Your task to perform on an android device: change the clock display to analog Image 0: 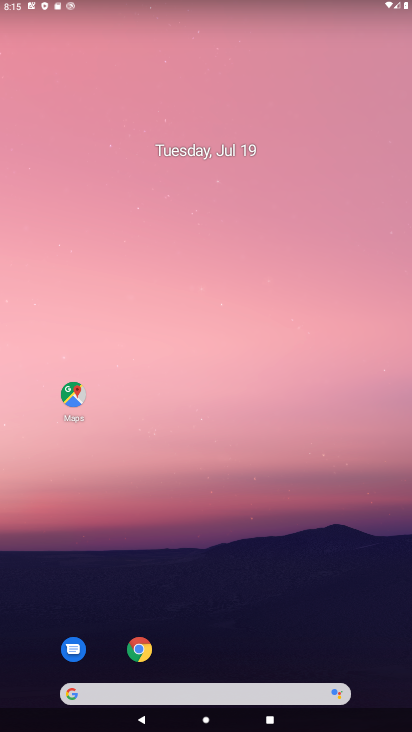
Step 0: press home button
Your task to perform on an android device: change the clock display to analog Image 1: 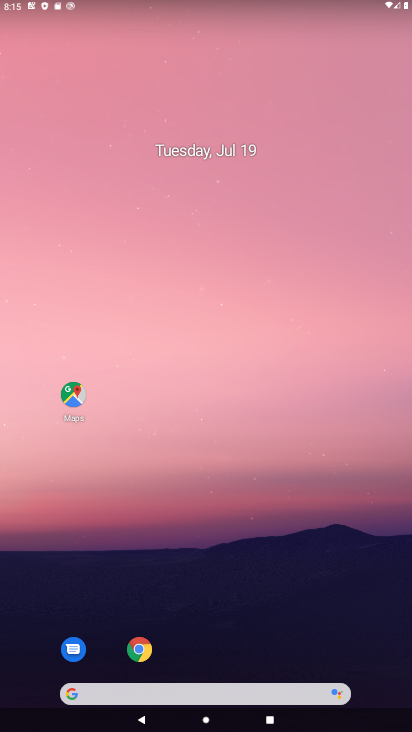
Step 1: drag from (215, 669) to (246, 0)
Your task to perform on an android device: change the clock display to analog Image 2: 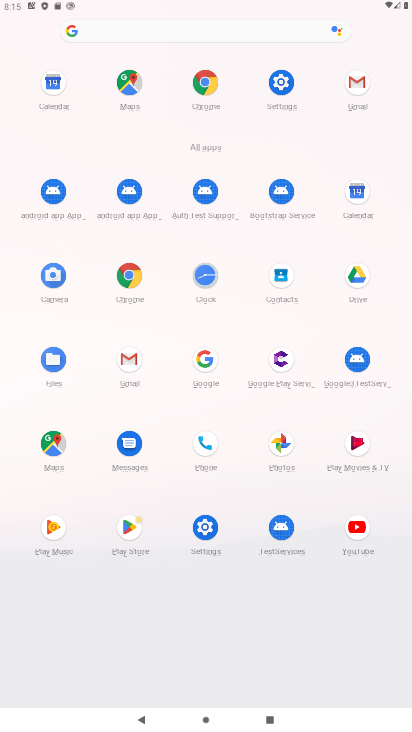
Step 2: click (203, 271)
Your task to perform on an android device: change the clock display to analog Image 3: 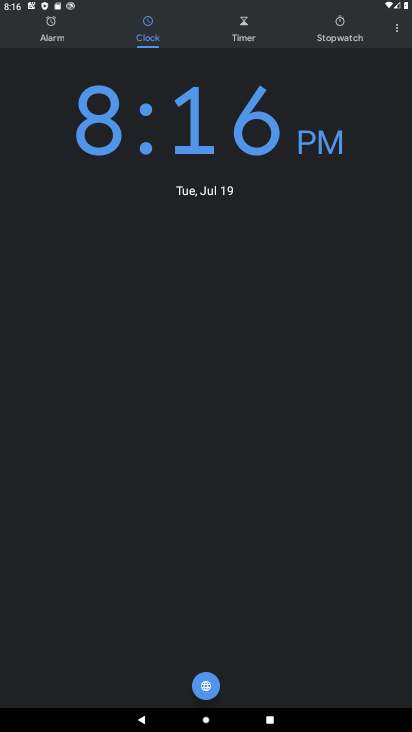
Step 3: click (393, 29)
Your task to perform on an android device: change the clock display to analog Image 4: 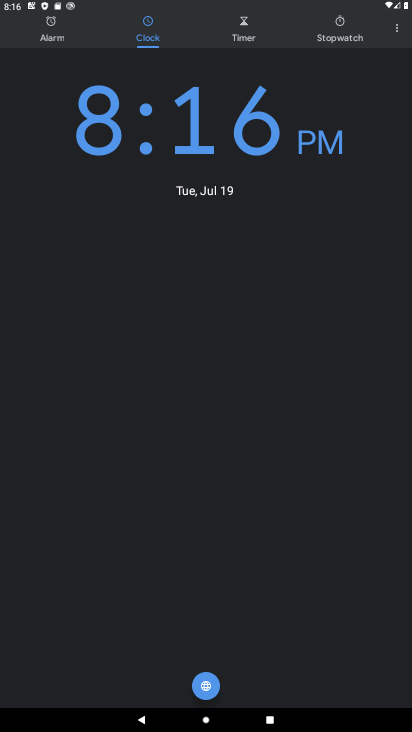
Step 4: click (395, 30)
Your task to perform on an android device: change the clock display to analog Image 5: 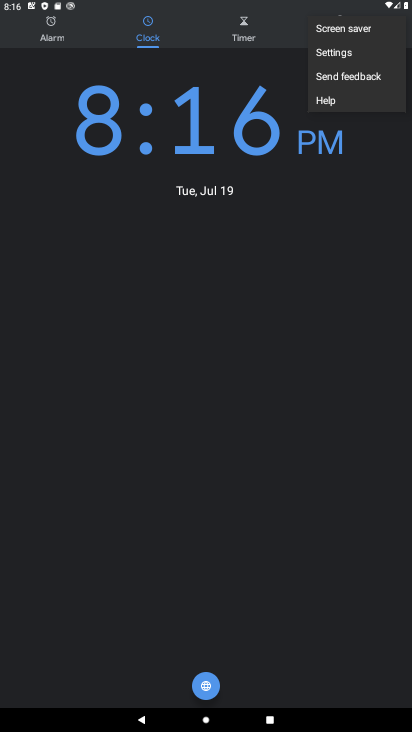
Step 5: click (357, 54)
Your task to perform on an android device: change the clock display to analog Image 6: 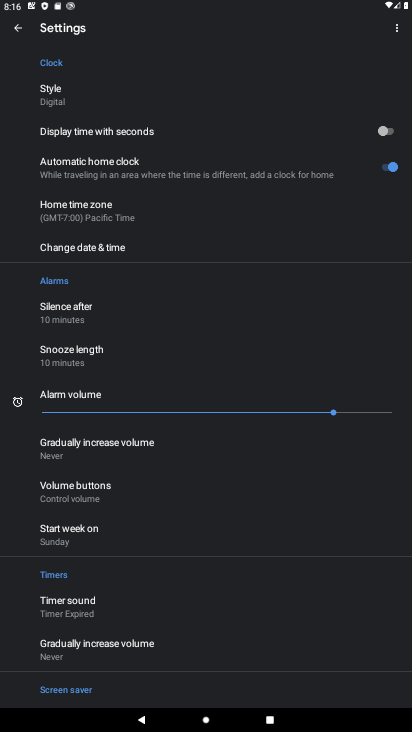
Step 6: click (80, 97)
Your task to perform on an android device: change the clock display to analog Image 7: 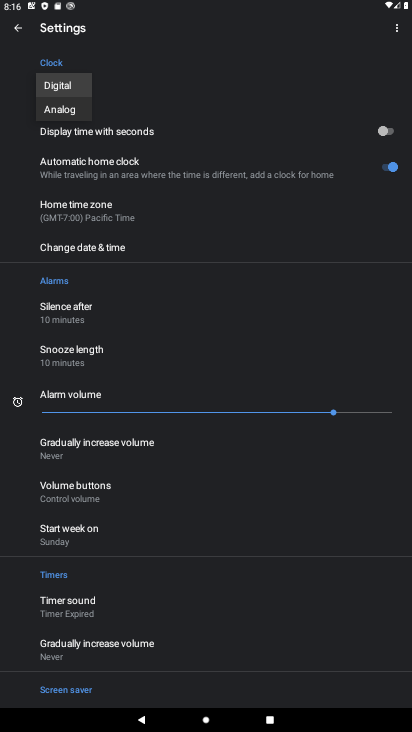
Step 7: click (71, 113)
Your task to perform on an android device: change the clock display to analog Image 8: 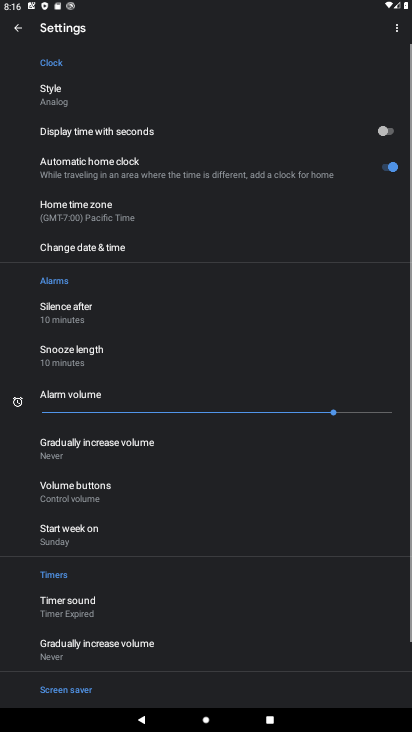
Step 8: task complete